Your task to perform on an android device: move a message to another label in the gmail app Image 0: 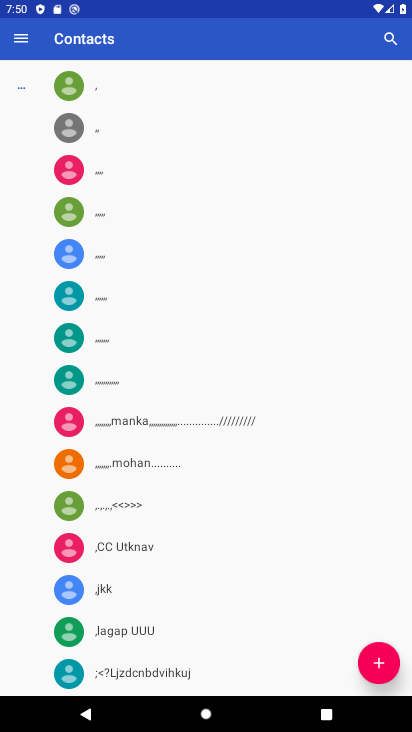
Step 0: press home button
Your task to perform on an android device: move a message to another label in the gmail app Image 1: 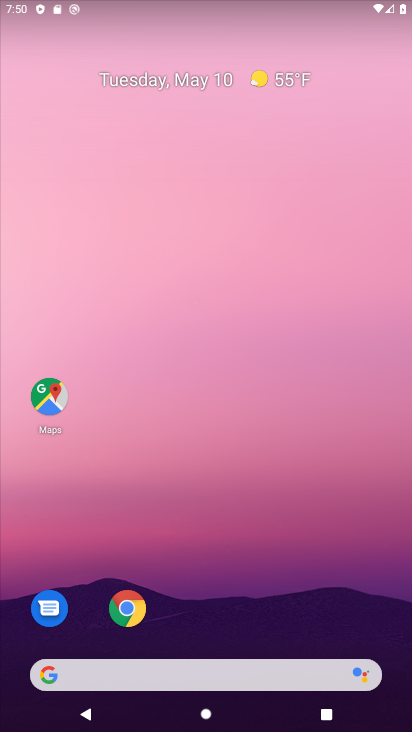
Step 1: drag from (226, 598) to (178, 54)
Your task to perform on an android device: move a message to another label in the gmail app Image 2: 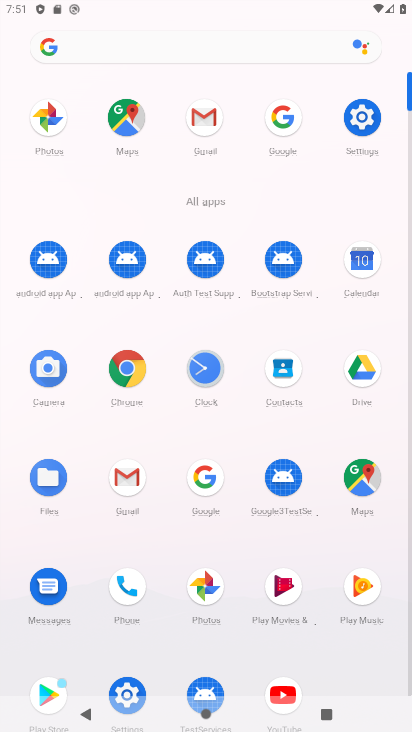
Step 2: click (123, 478)
Your task to perform on an android device: move a message to another label in the gmail app Image 3: 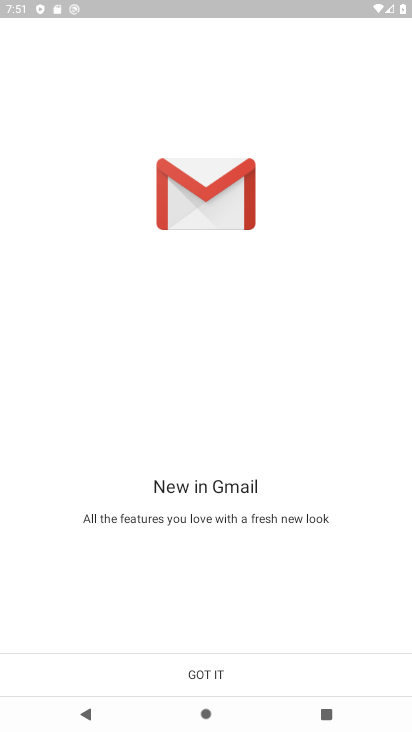
Step 3: click (203, 676)
Your task to perform on an android device: move a message to another label in the gmail app Image 4: 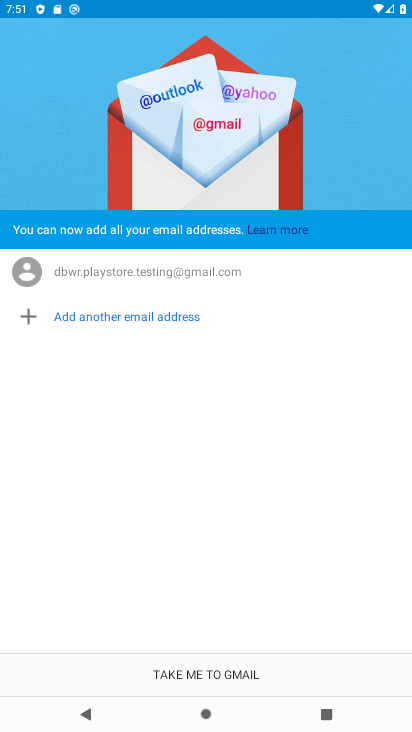
Step 4: click (205, 672)
Your task to perform on an android device: move a message to another label in the gmail app Image 5: 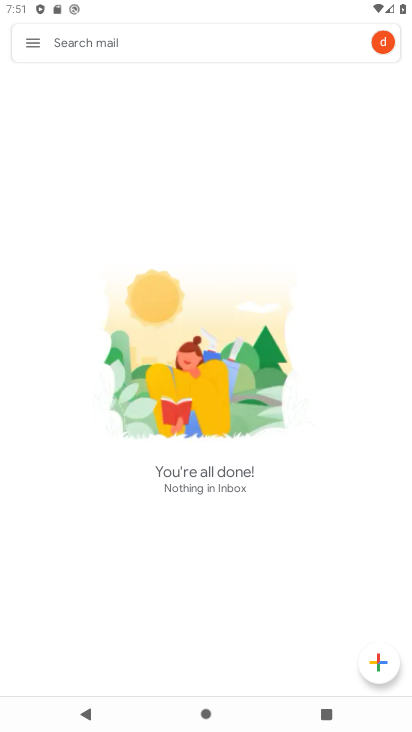
Step 5: click (30, 38)
Your task to perform on an android device: move a message to another label in the gmail app Image 6: 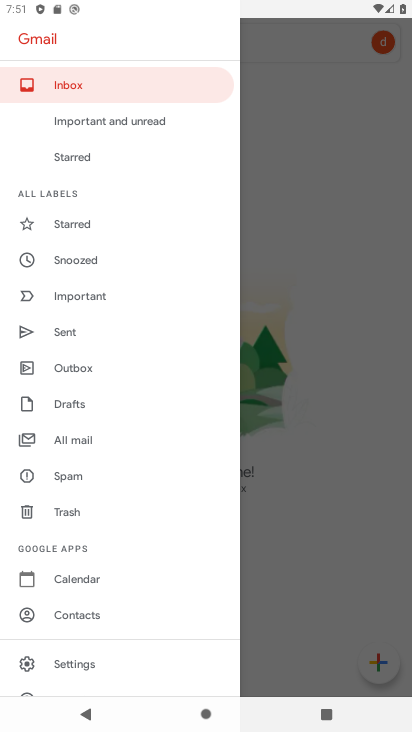
Step 6: click (79, 439)
Your task to perform on an android device: move a message to another label in the gmail app Image 7: 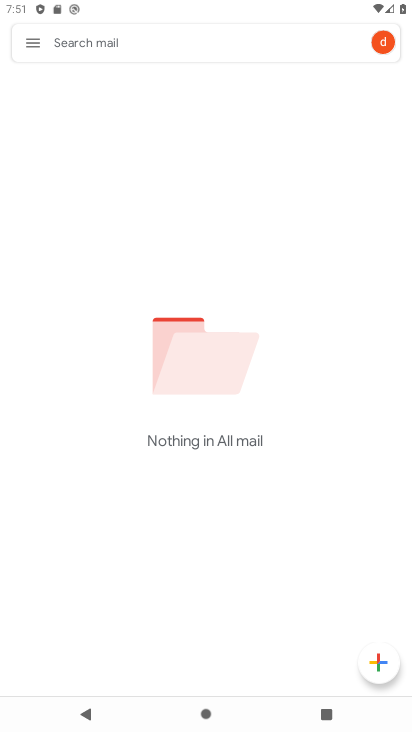
Step 7: task complete